Your task to perform on an android device: Go to Maps Image 0: 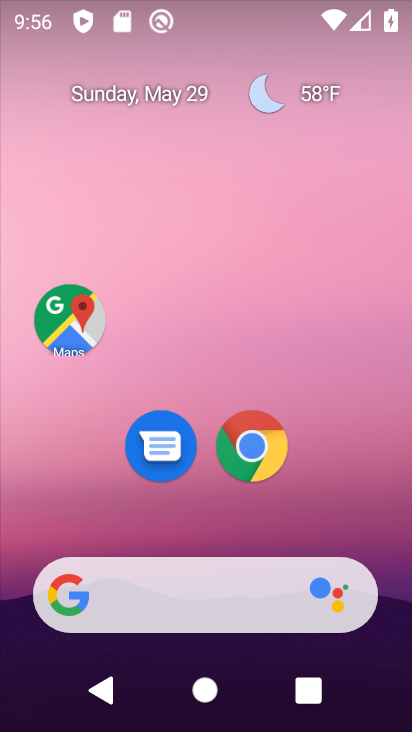
Step 0: click (86, 324)
Your task to perform on an android device: Go to Maps Image 1: 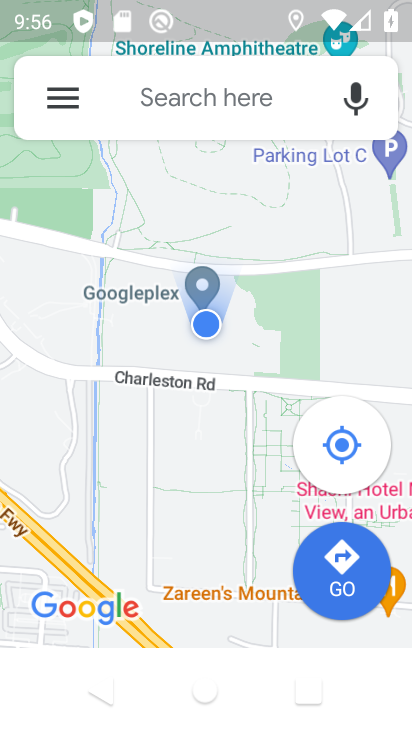
Step 1: task complete